Your task to perform on an android device: open app "TextNow: Call + Text Unlimited" (install if not already installed) and enter user name: "stoke@yahoo.com" and password: "prompted" Image 0: 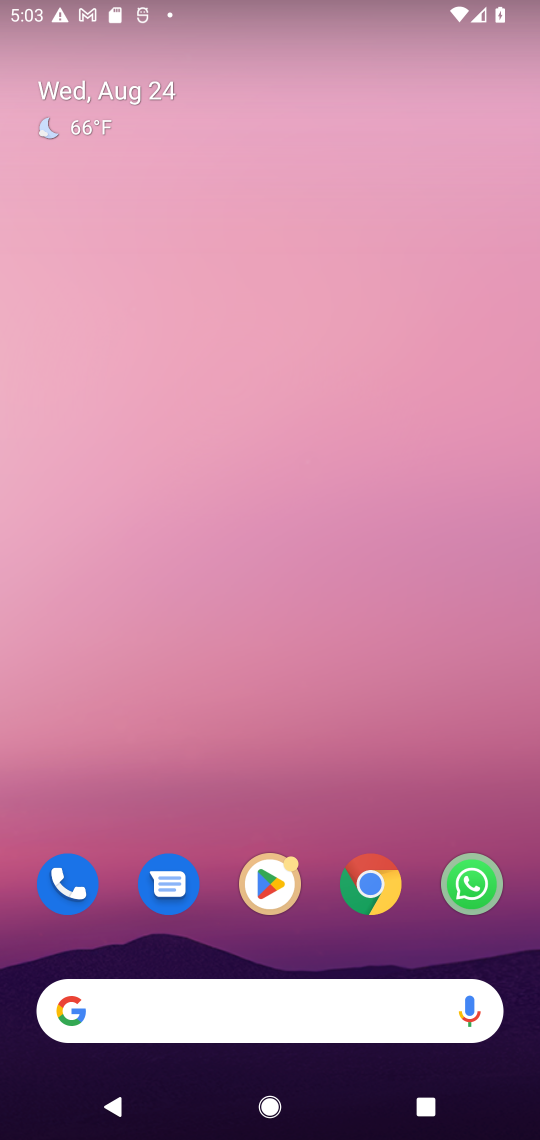
Step 0: click (273, 887)
Your task to perform on an android device: open app "TextNow: Call + Text Unlimited" (install if not already installed) and enter user name: "stoke@yahoo.com" and password: "prompted" Image 1: 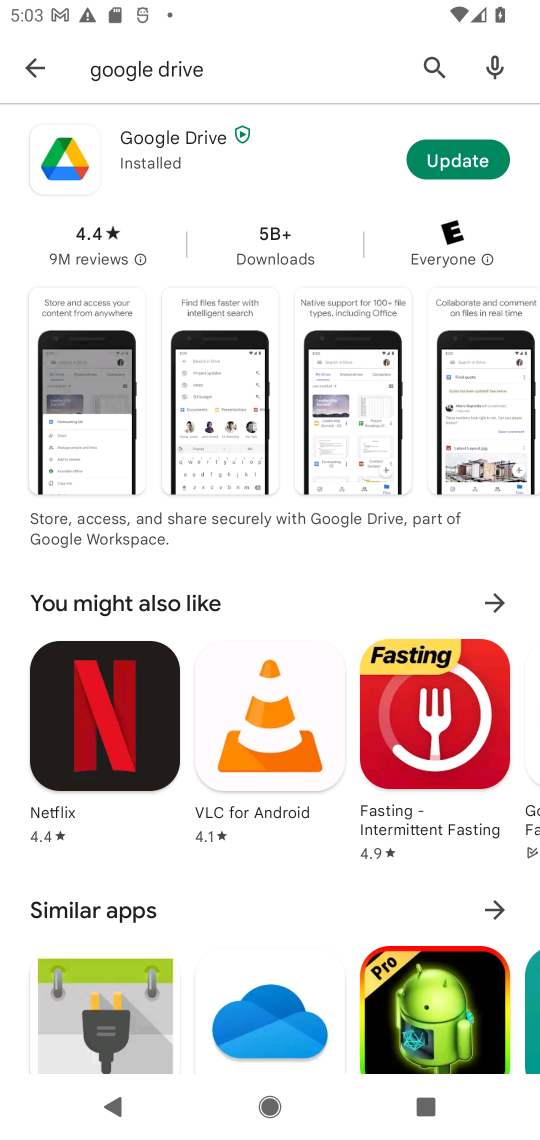
Step 1: click (42, 76)
Your task to perform on an android device: open app "TextNow: Call + Text Unlimited" (install if not already installed) and enter user name: "stoke@yahoo.com" and password: "prompted" Image 2: 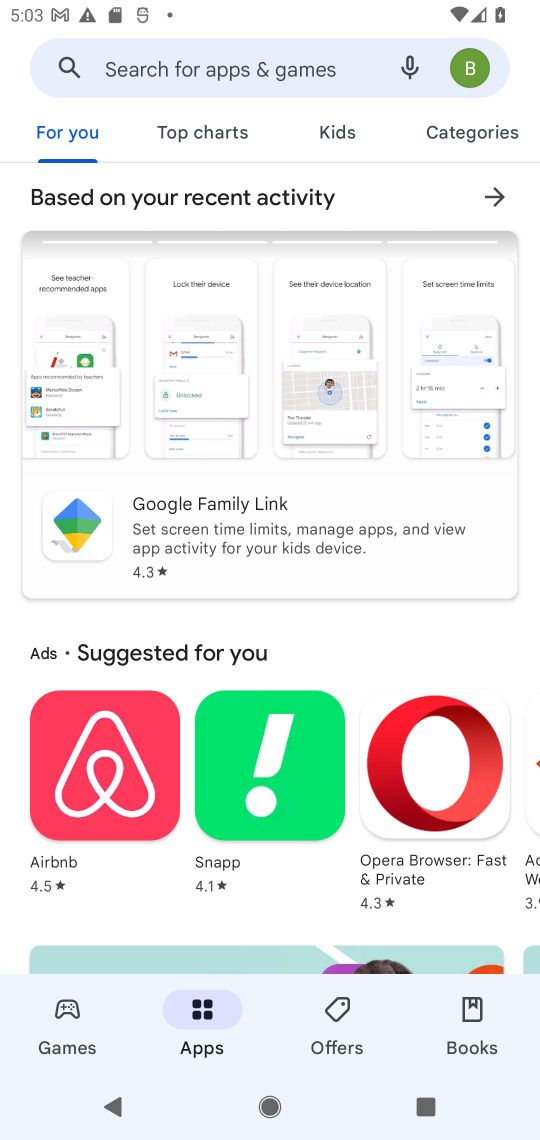
Step 2: click (245, 74)
Your task to perform on an android device: open app "TextNow: Call + Text Unlimited" (install if not already installed) and enter user name: "stoke@yahoo.com" and password: "prompted" Image 3: 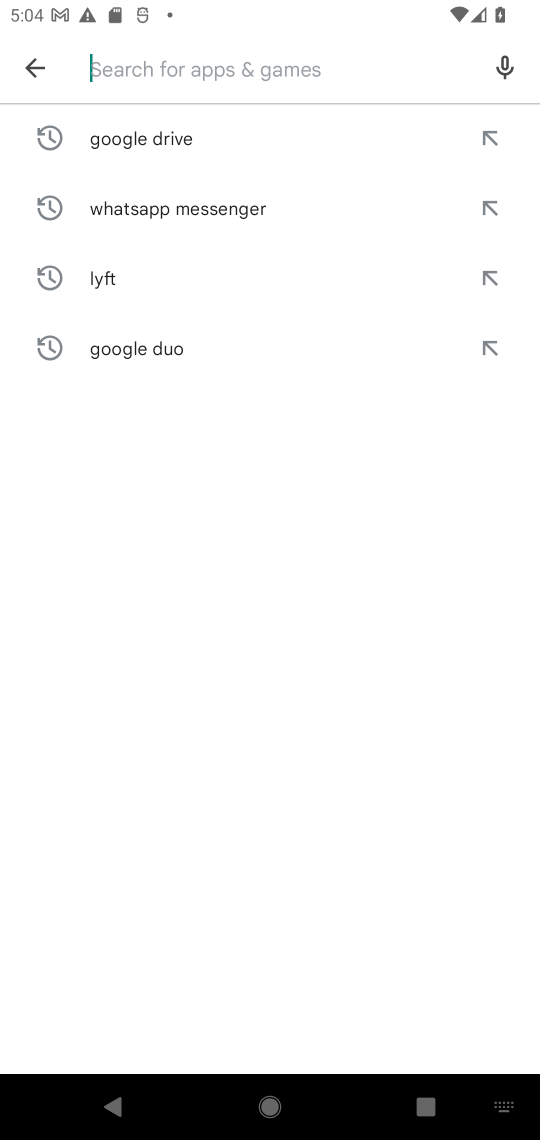
Step 3: type "stoke@yahoo.com"
Your task to perform on an android device: open app "TextNow: Call + Text Unlimited" (install if not already installed) and enter user name: "stoke@yahoo.com" and password: "prompted" Image 4: 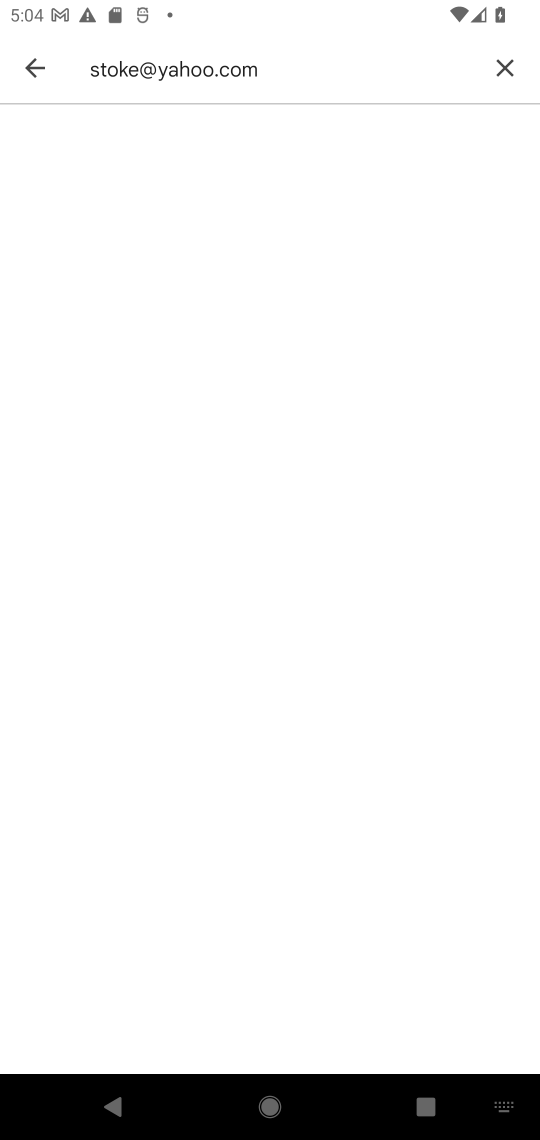
Step 4: click (502, 69)
Your task to perform on an android device: open app "TextNow: Call + Text Unlimited" (install if not already installed) and enter user name: "stoke@yahoo.com" and password: "prompted" Image 5: 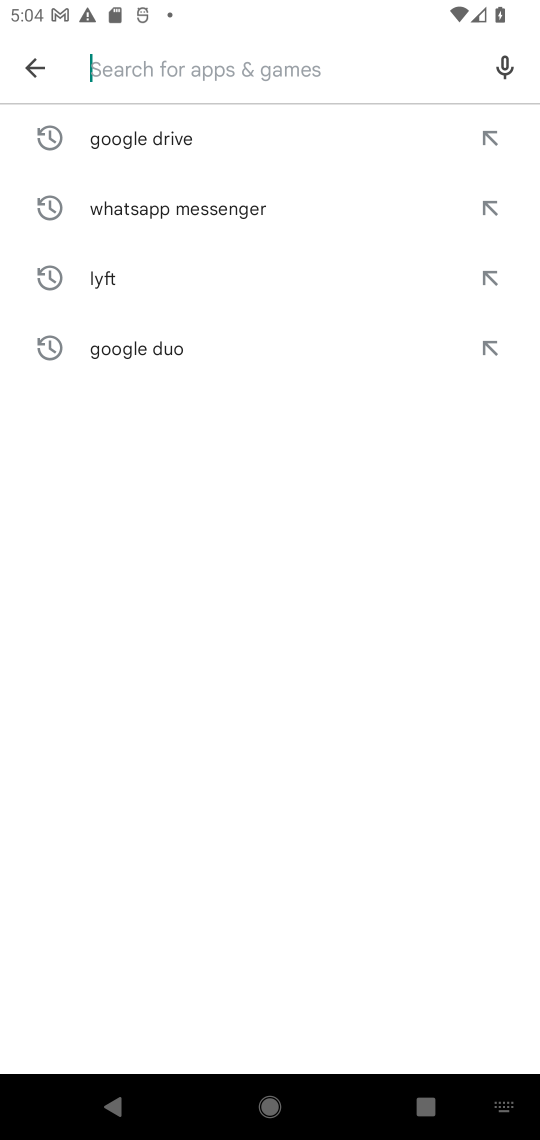
Step 5: type "TextNow: Call + Text Unlimited"
Your task to perform on an android device: open app "TextNow: Call + Text Unlimited" (install if not already installed) and enter user name: "stoke@yahoo.com" and password: "prompted" Image 6: 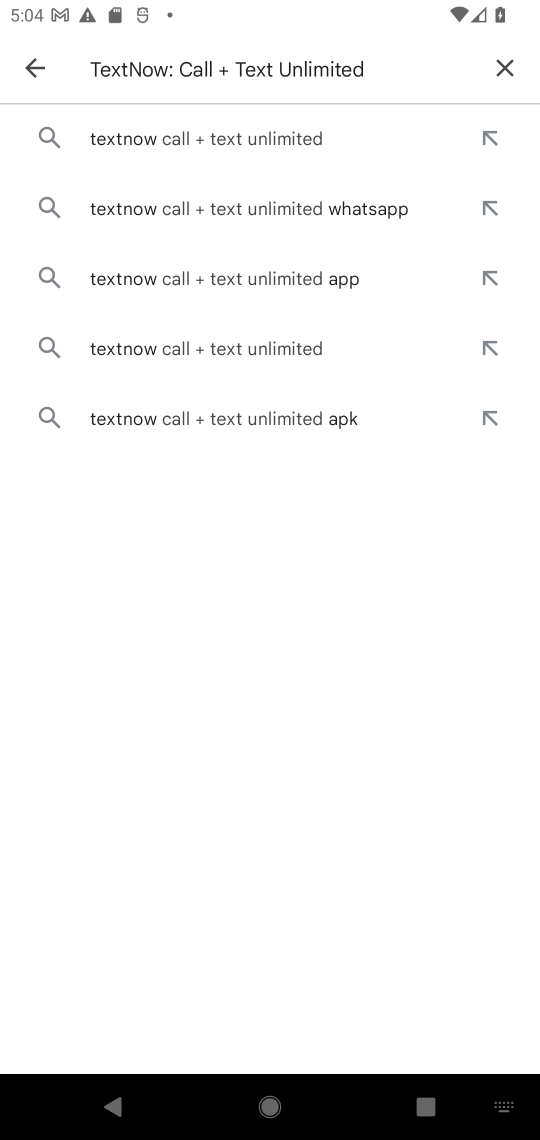
Step 6: click (185, 125)
Your task to perform on an android device: open app "TextNow: Call + Text Unlimited" (install if not already installed) and enter user name: "stoke@yahoo.com" and password: "prompted" Image 7: 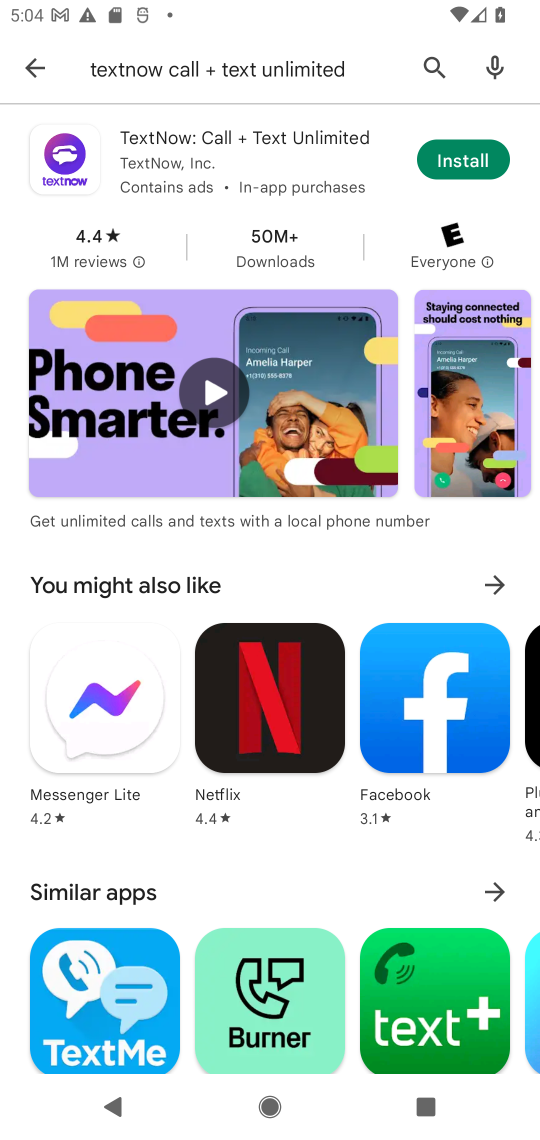
Step 7: click (464, 152)
Your task to perform on an android device: open app "TextNow: Call + Text Unlimited" (install if not already installed) and enter user name: "stoke@yahoo.com" and password: "prompted" Image 8: 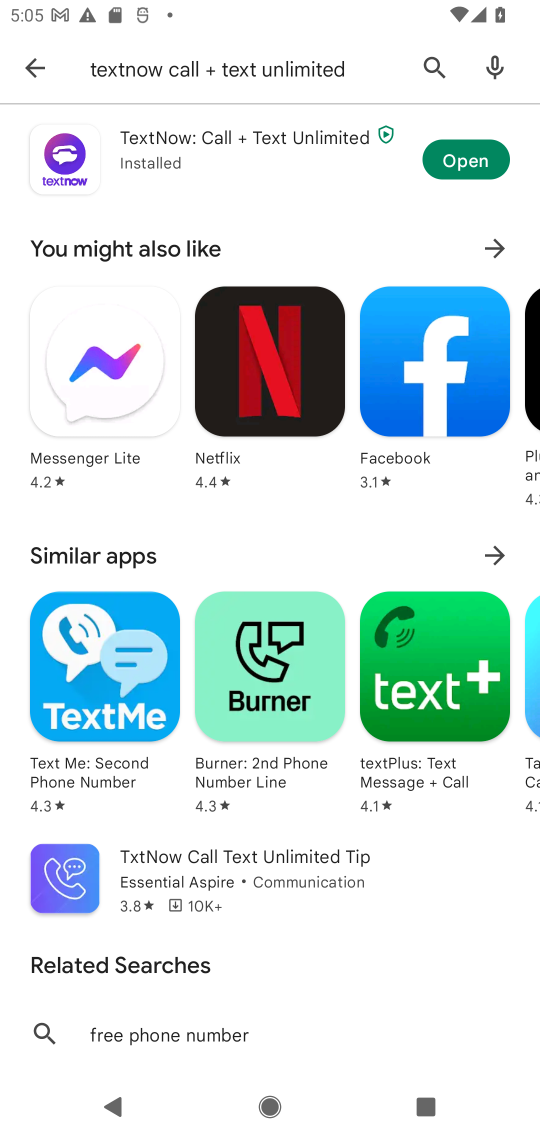
Step 8: click (464, 170)
Your task to perform on an android device: open app "TextNow: Call + Text Unlimited" (install if not already installed) and enter user name: "stoke@yahoo.com" and password: "prompted" Image 9: 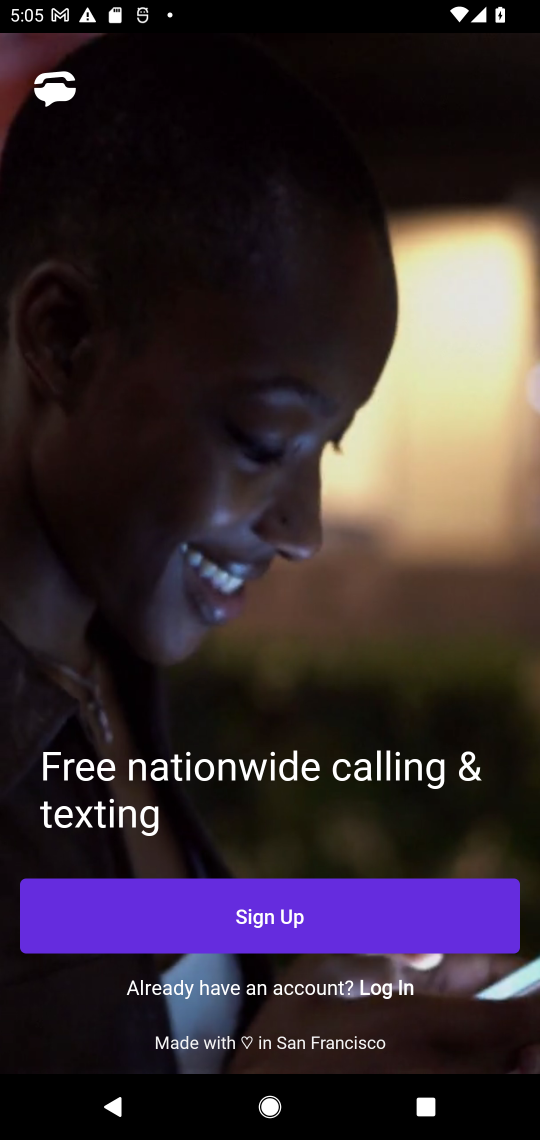
Step 9: task complete